Your task to perform on an android device: Go to Wikipedia Image 0: 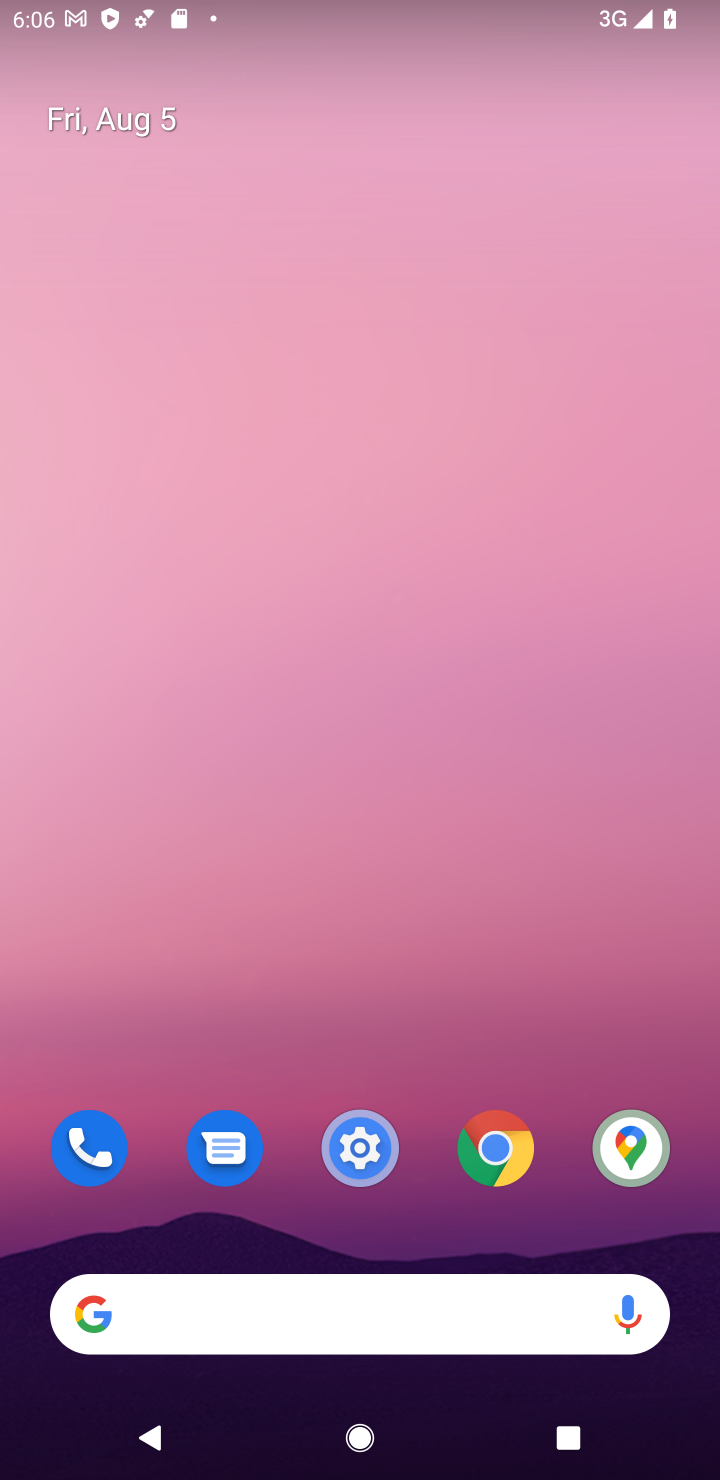
Step 0: click (497, 1154)
Your task to perform on an android device: Go to Wikipedia Image 1: 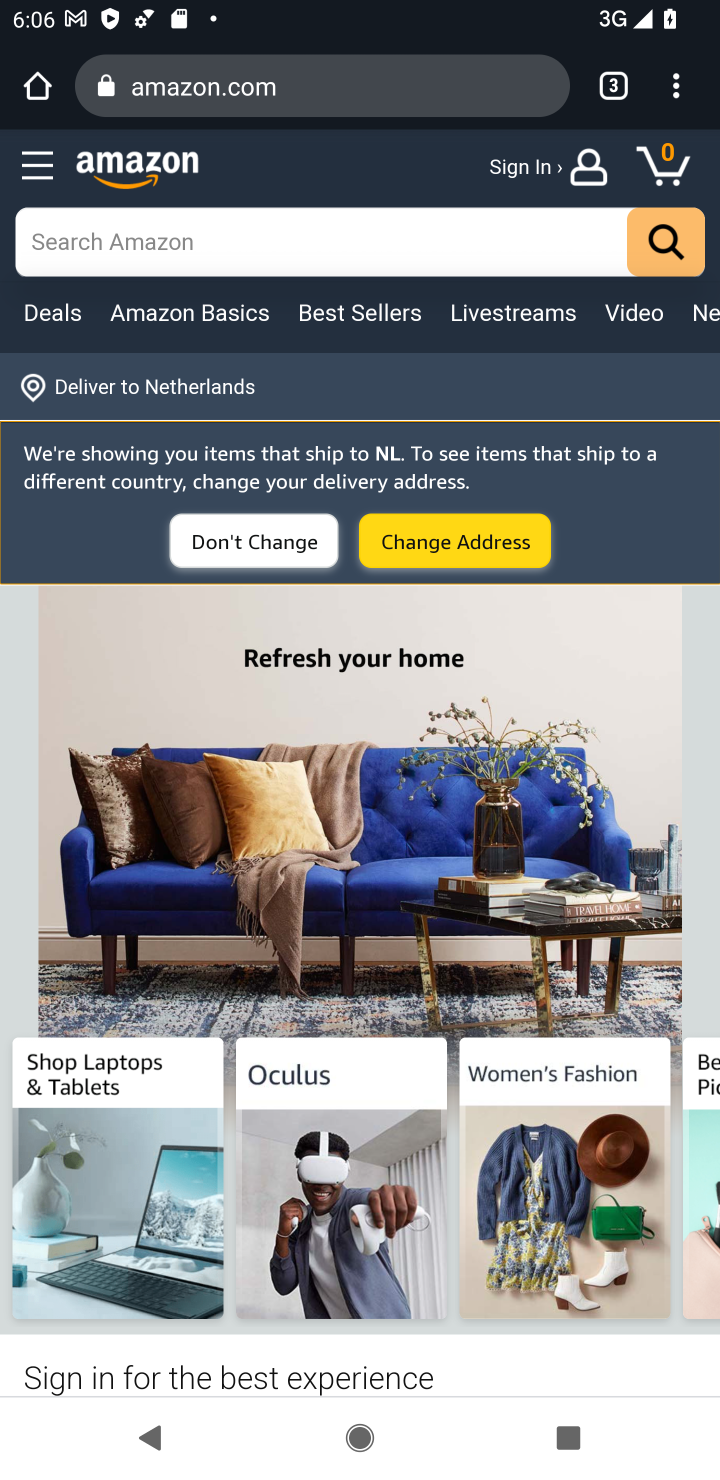
Step 1: click (684, 88)
Your task to perform on an android device: Go to Wikipedia Image 2: 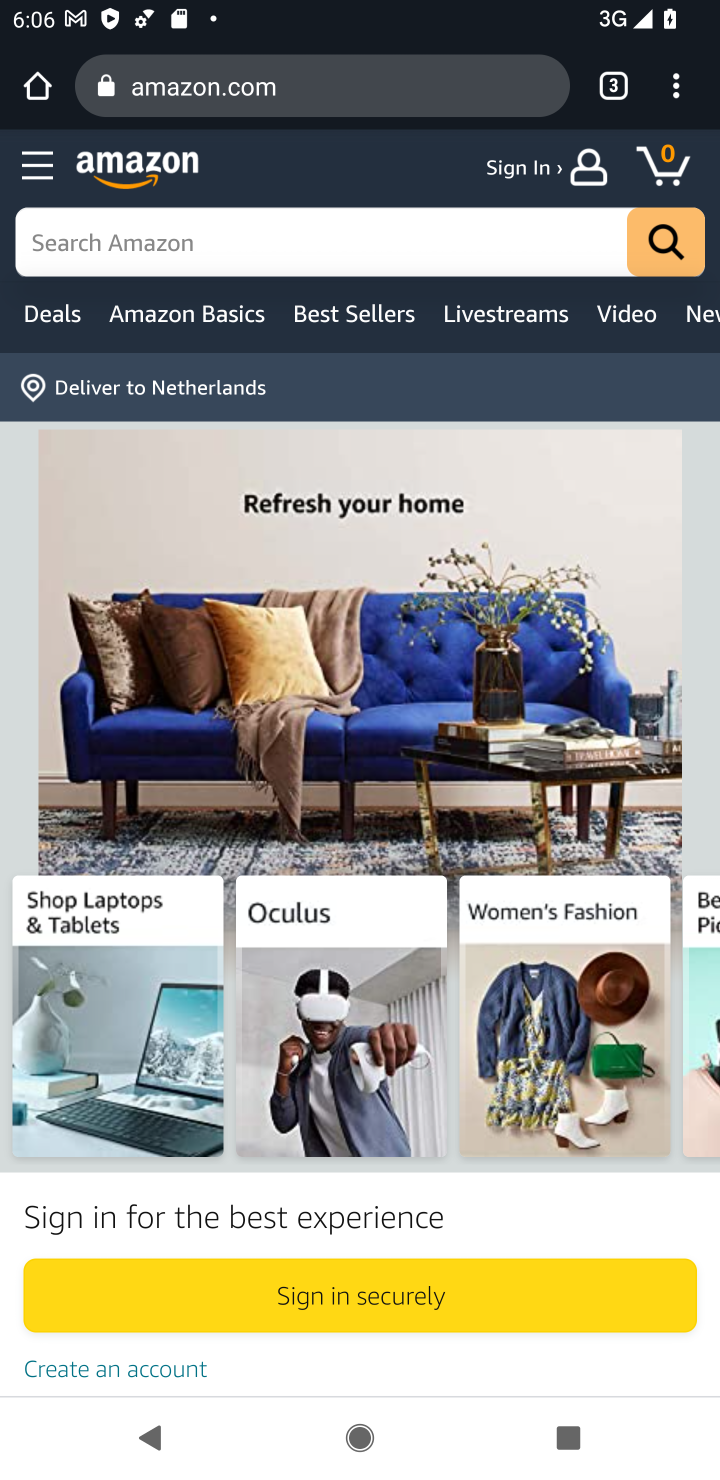
Step 2: click (682, 105)
Your task to perform on an android device: Go to Wikipedia Image 3: 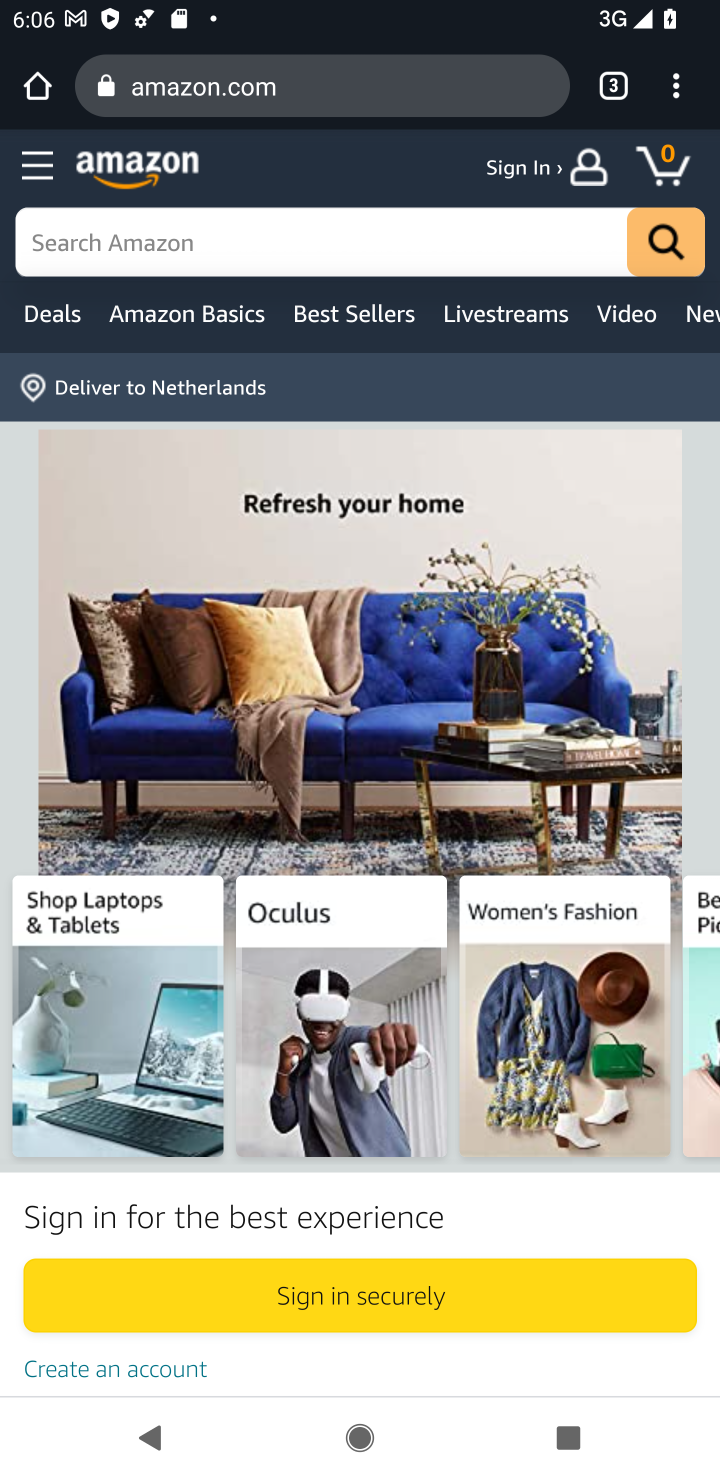
Step 3: click (687, 95)
Your task to perform on an android device: Go to Wikipedia Image 4: 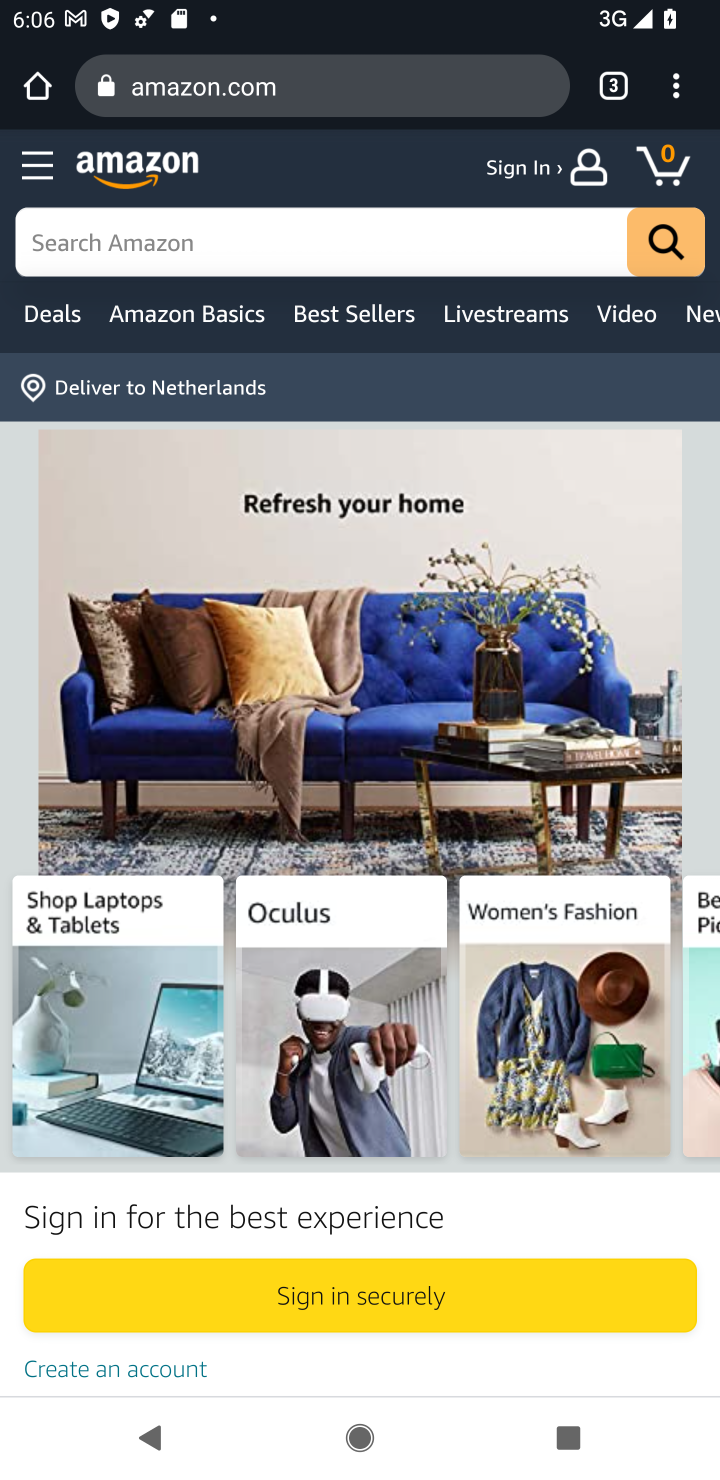
Step 4: click (675, 95)
Your task to perform on an android device: Go to Wikipedia Image 5: 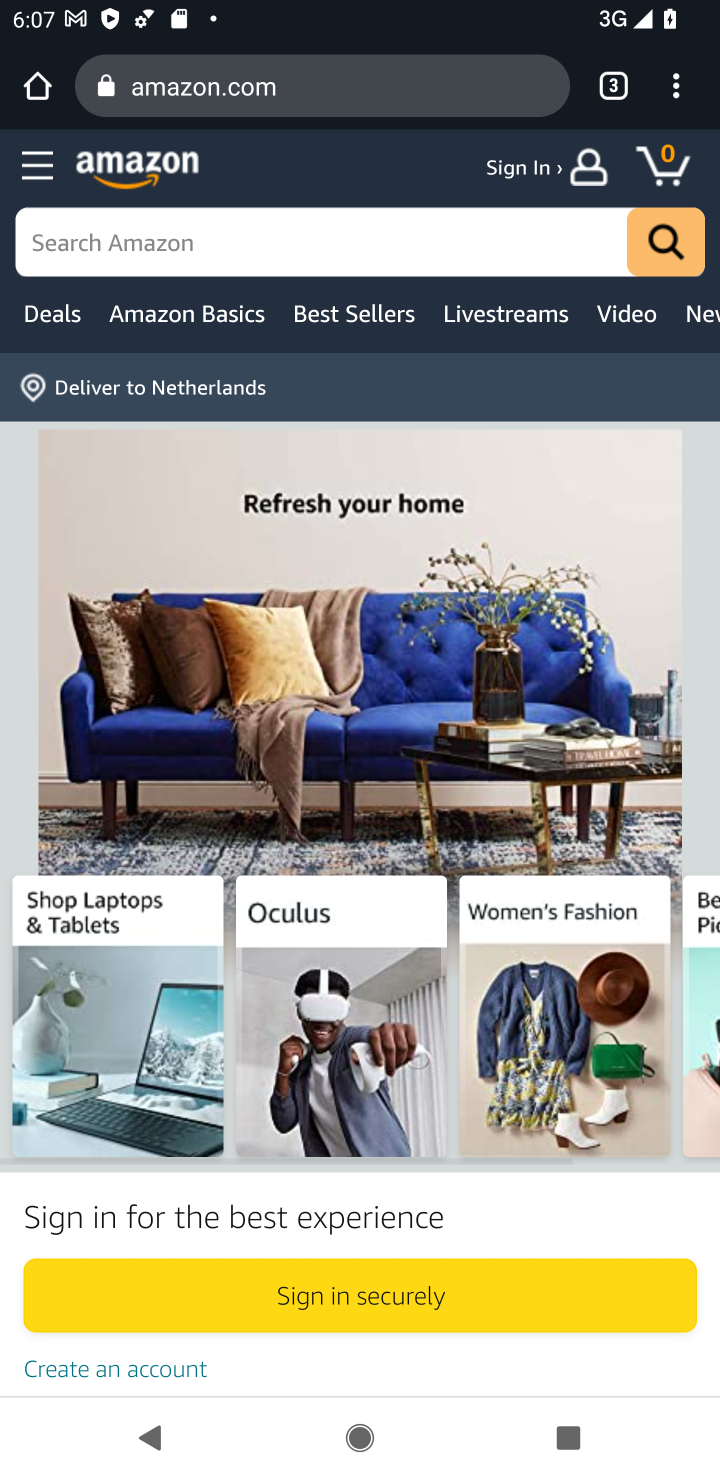
Step 5: click (687, 90)
Your task to perform on an android device: Go to Wikipedia Image 6: 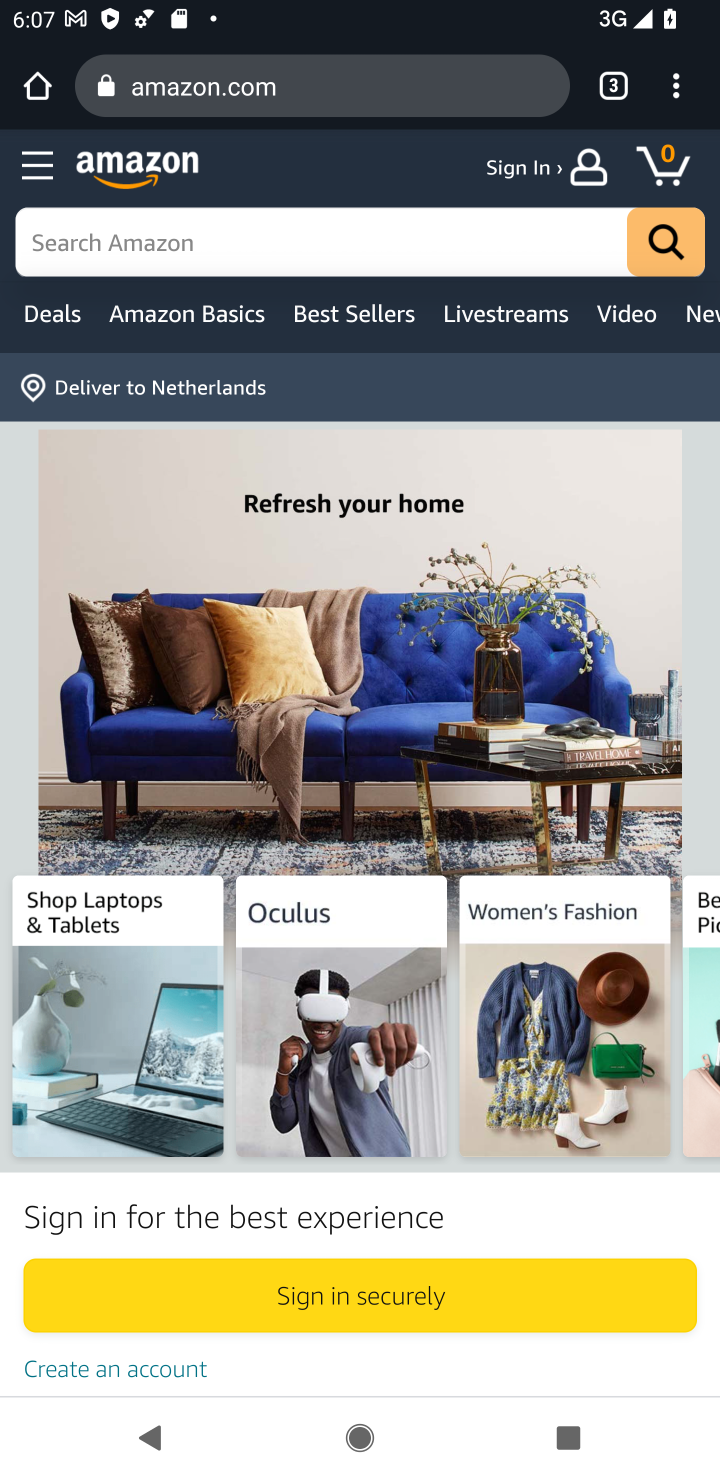
Step 6: click (673, 88)
Your task to perform on an android device: Go to Wikipedia Image 7: 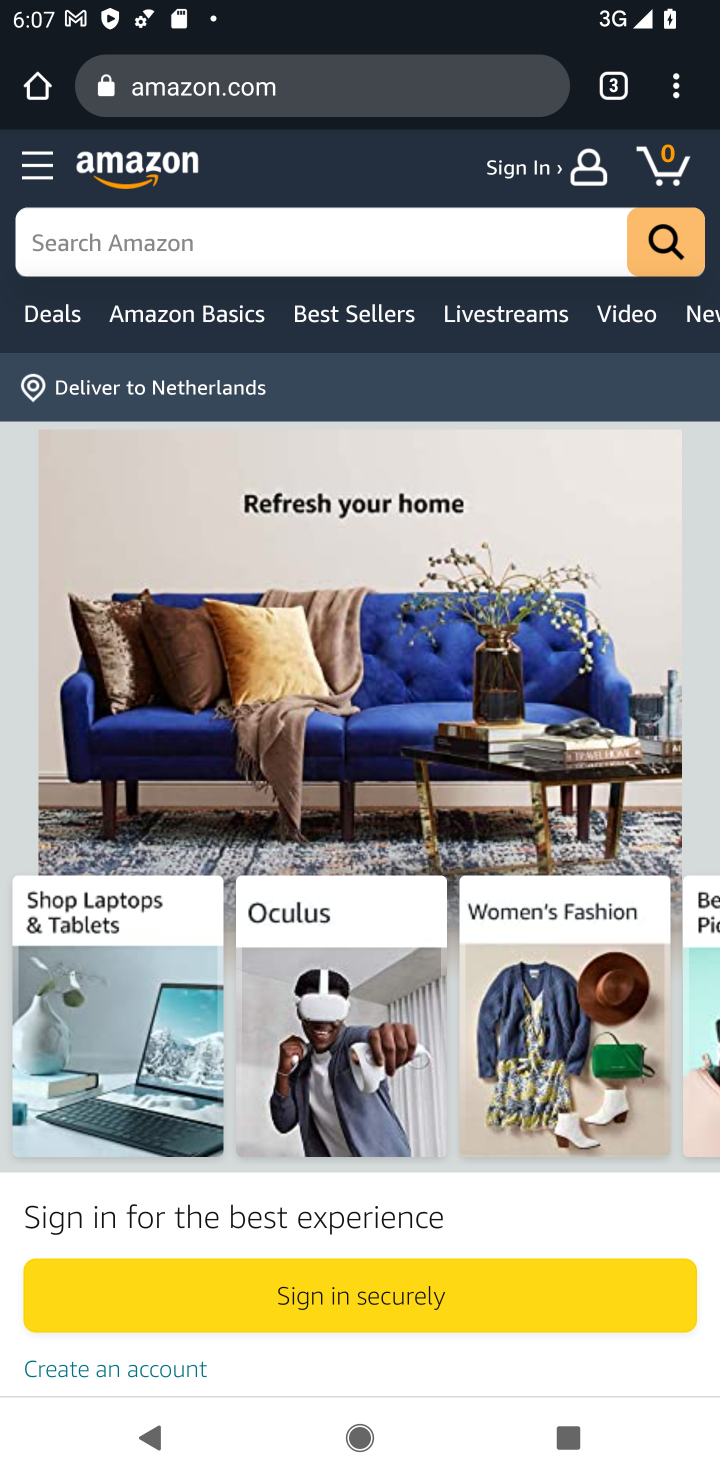
Step 7: click (675, 92)
Your task to perform on an android device: Go to Wikipedia Image 8: 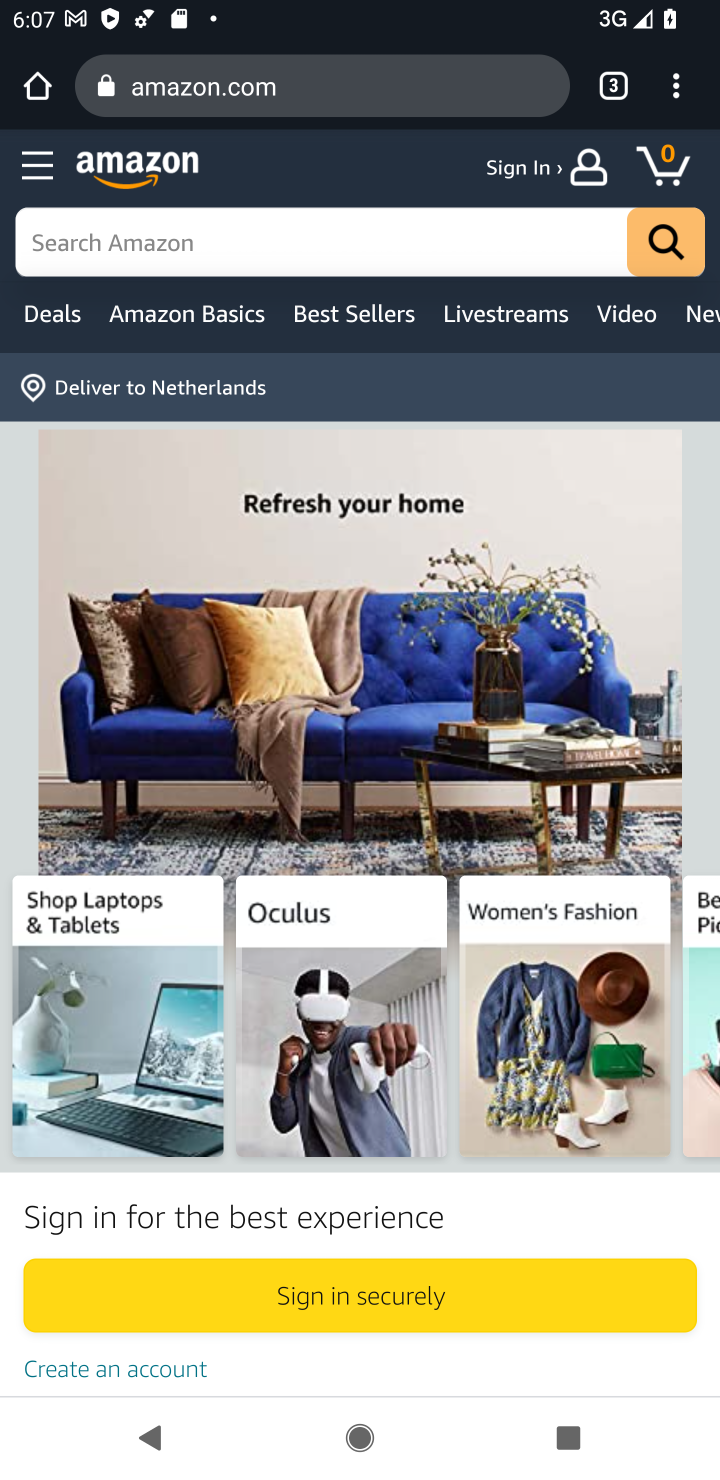
Step 8: click (692, 78)
Your task to perform on an android device: Go to Wikipedia Image 9: 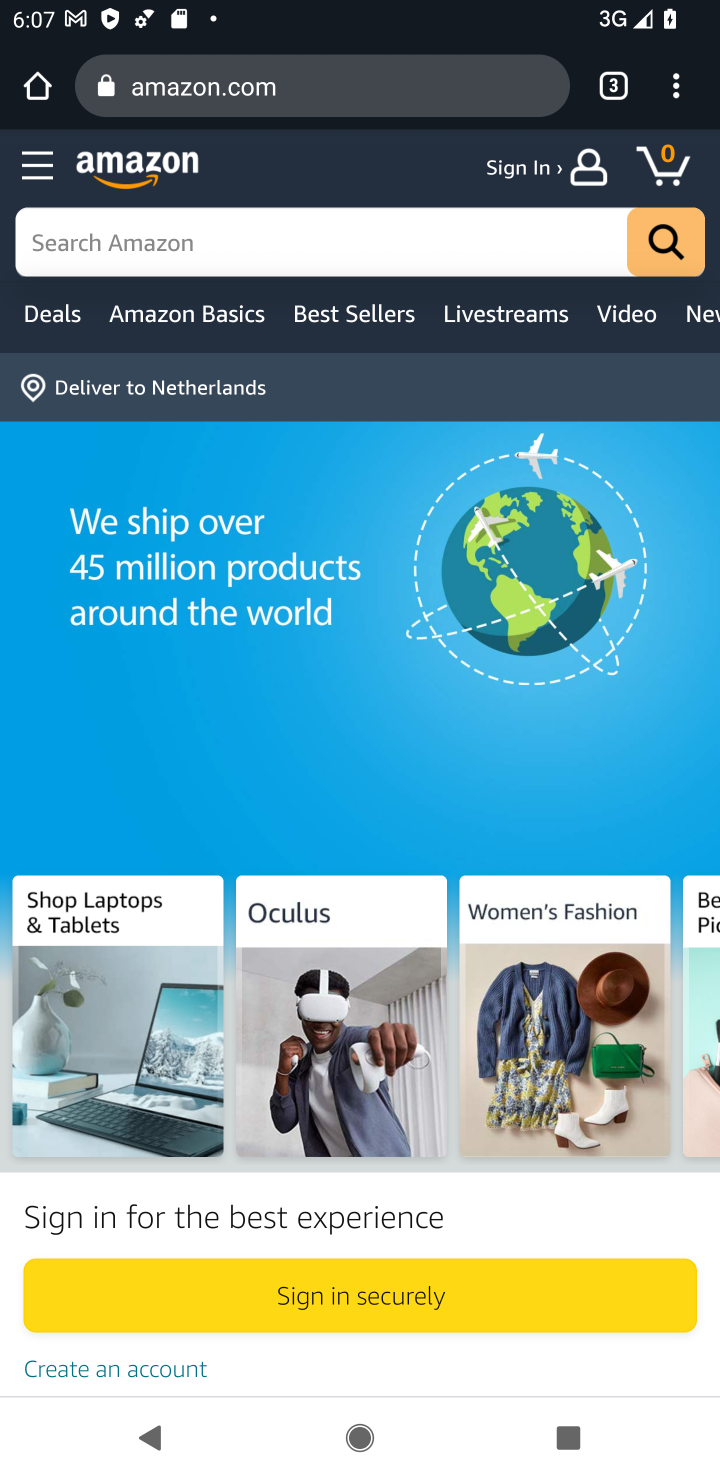
Step 9: click (681, 79)
Your task to perform on an android device: Go to Wikipedia Image 10: 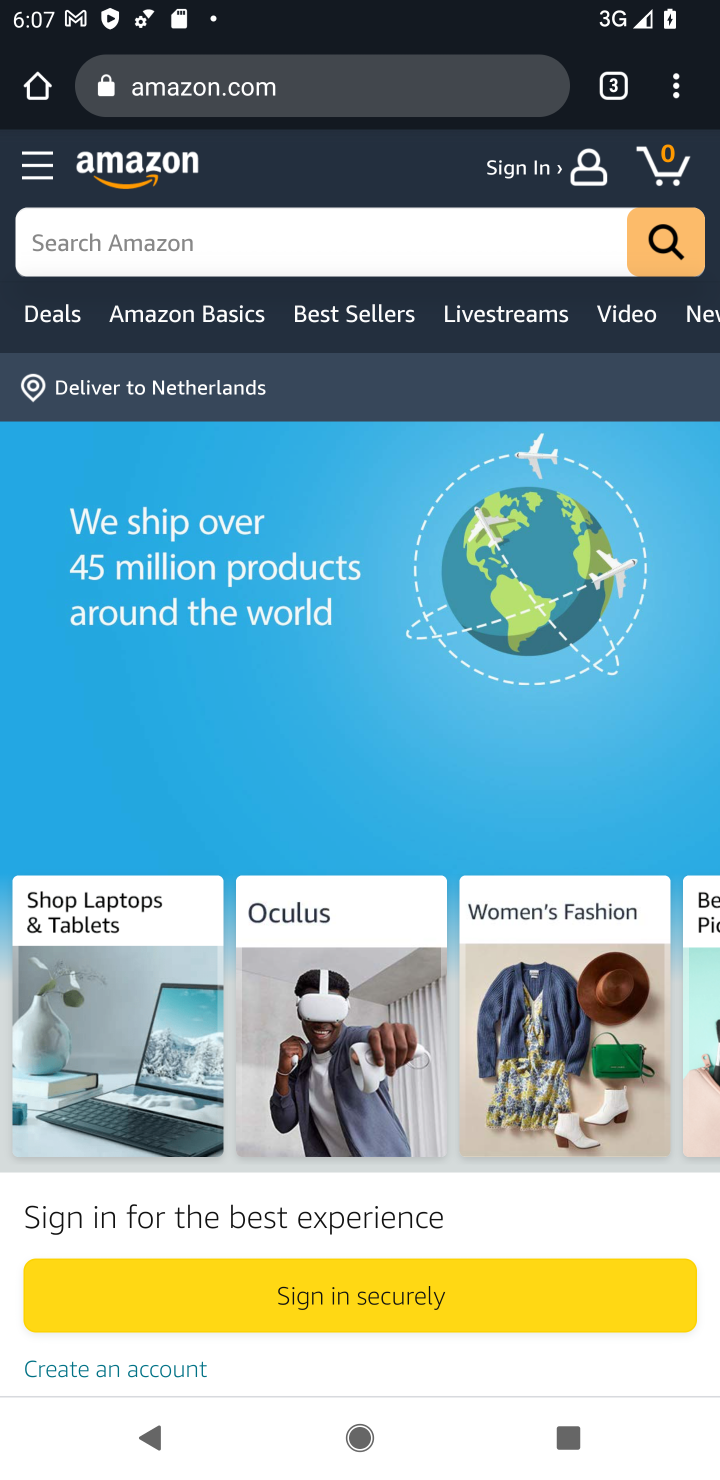
Step 10: click (676, 99)
Your task to perform on an android device: Go to Wikipedia Image 11: 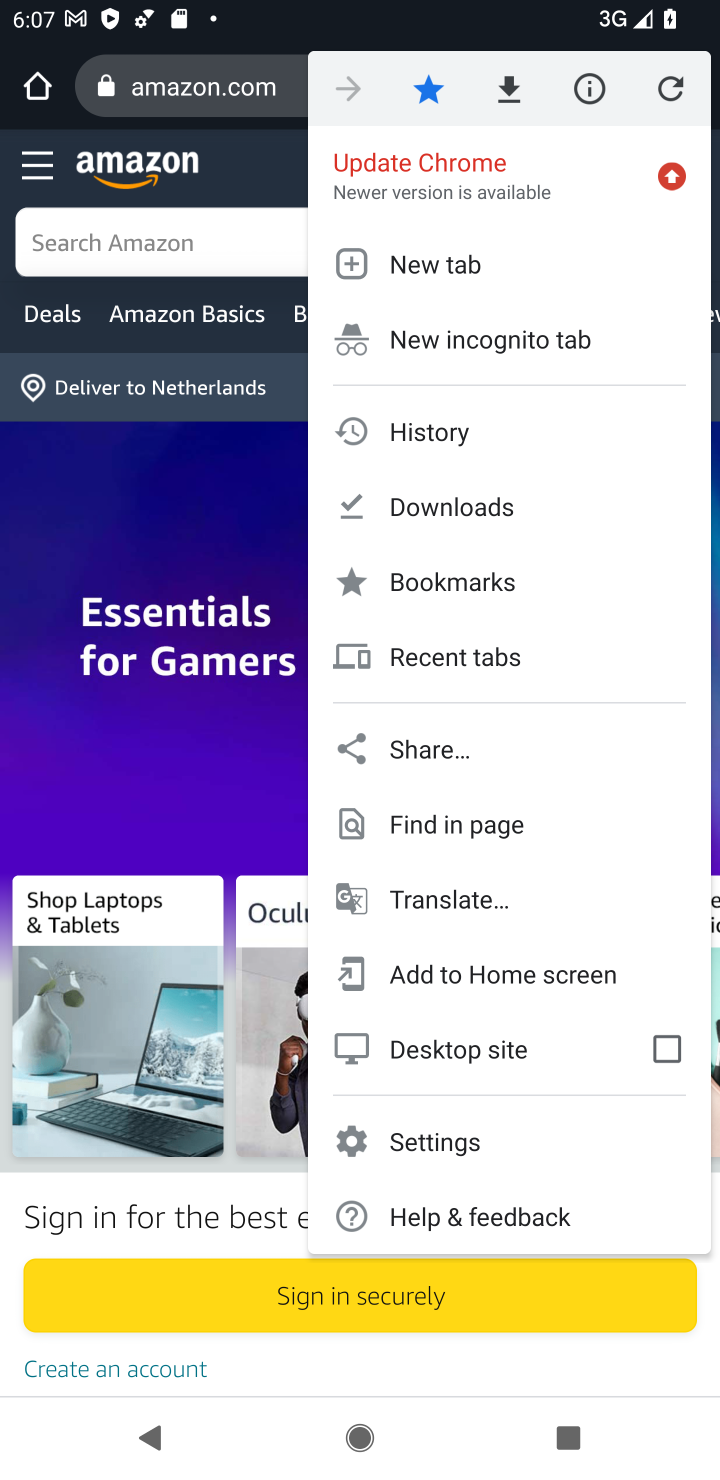
Step 11: click (482, 269)
Your task to perform on an android device: Go to Wikipedia Image 12: 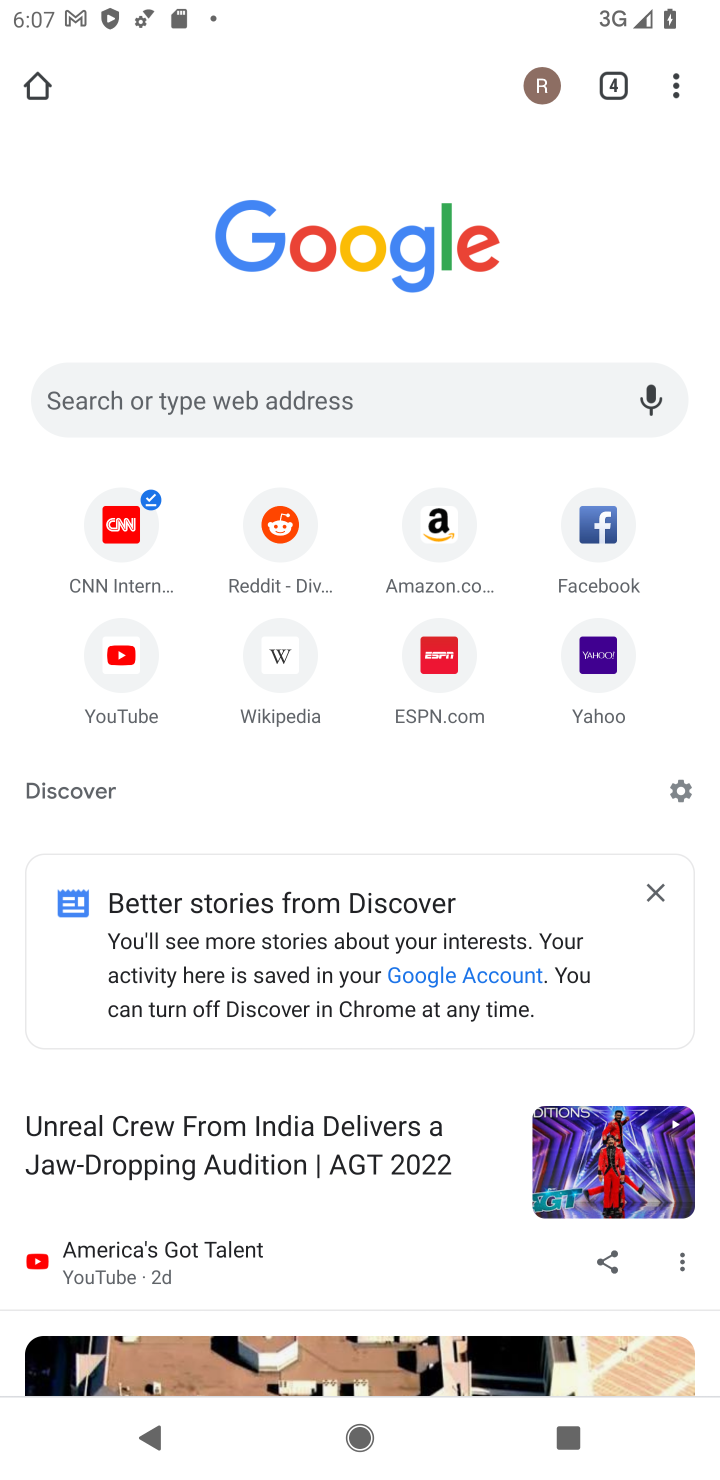
Step 12: click (272, 663)
Your task to perform on an android device: Go to Wikipedia Image 13: 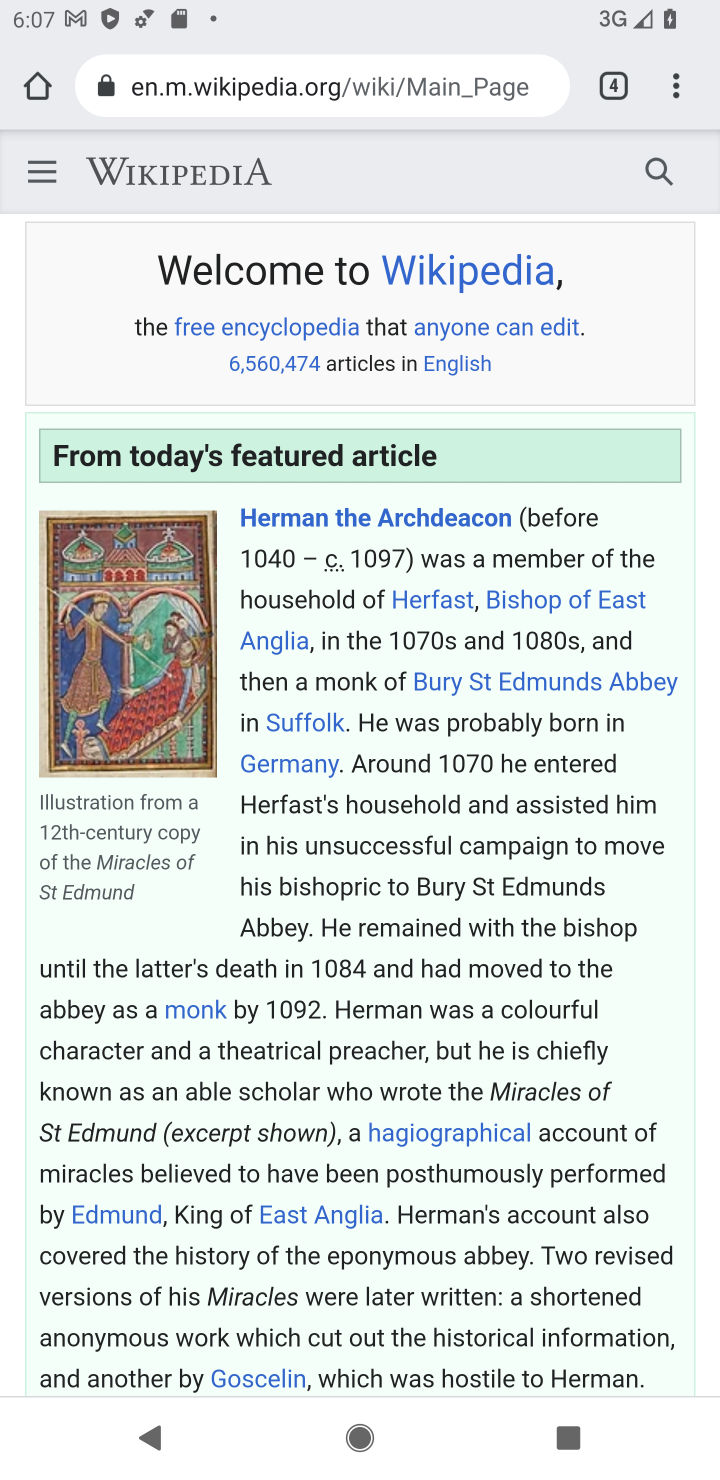
Step 13: task complete